Your task to perform on an android device: clear all cookies in the chrome app Image 0: 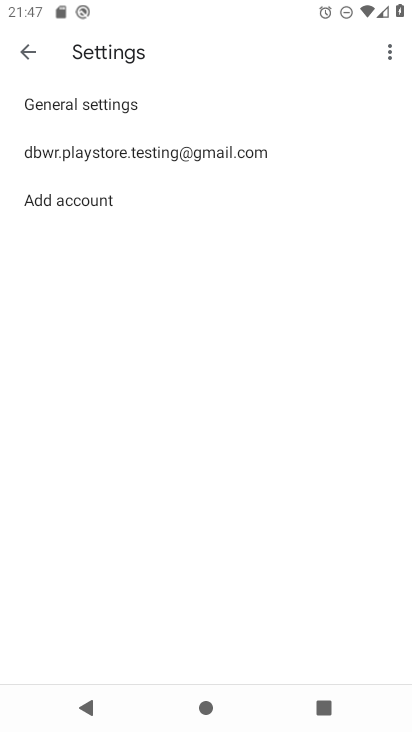
Step 0: press home button
Your task to perform on an android device: clear all cookies in the chrome app Image 1: 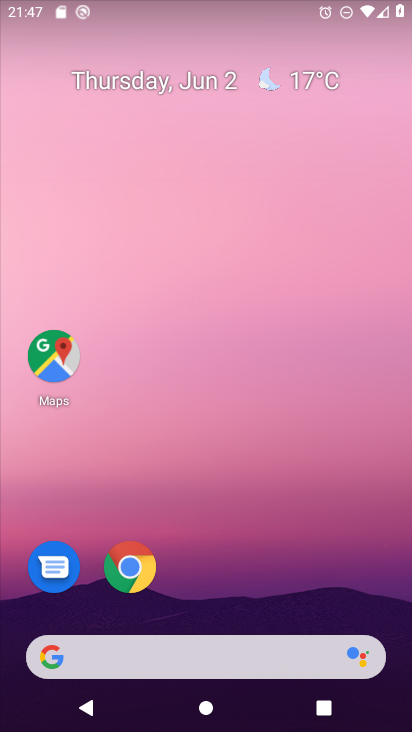
Step 1: click (142, 574)
Your task to perform on an android device: clear all cookies in the chrome app Image 2: 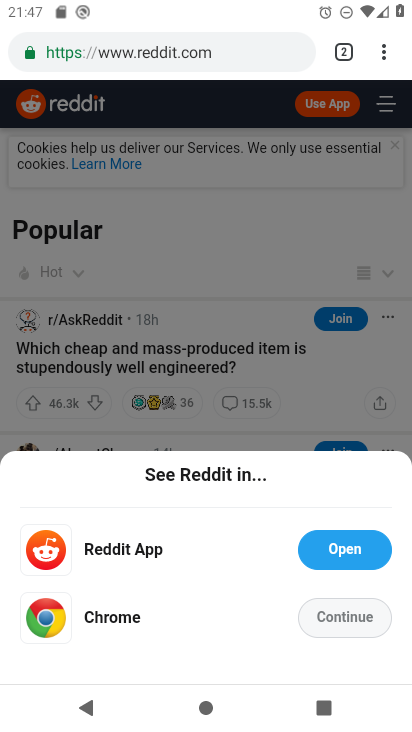
Step 2: click (391, 50)
Your task to perform on an android device: clear all cookies in the chrome app Image 3: 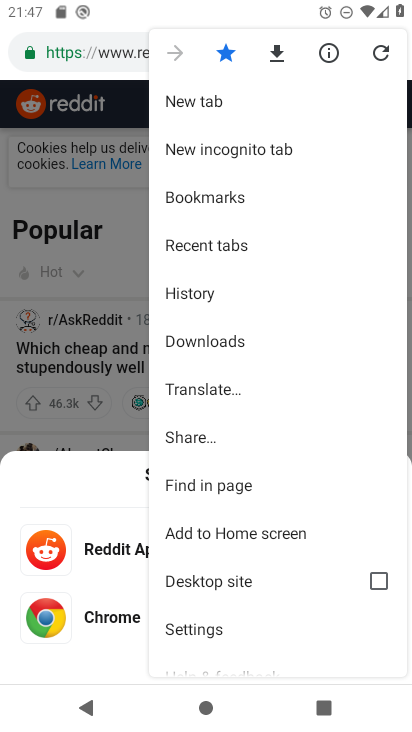
Step 3: drag from (217, 593) to (231, 393)
Your task to perform on an android device: clear all cookies in the chrome app Image 4: 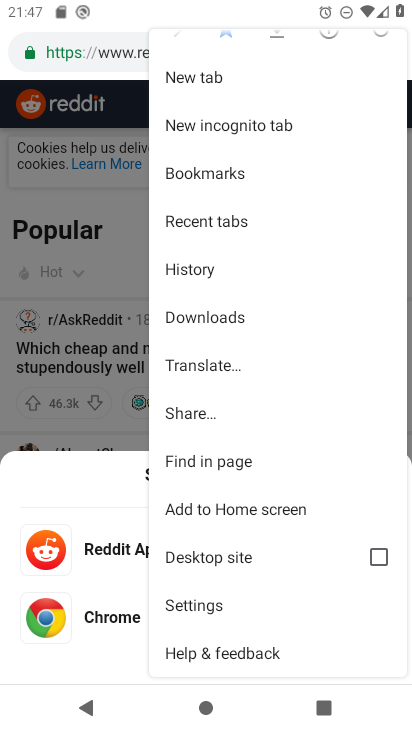
Step 4: click (203, 265)
Your task to perform on an android device: clear all cookies in the chrome app Image 5: 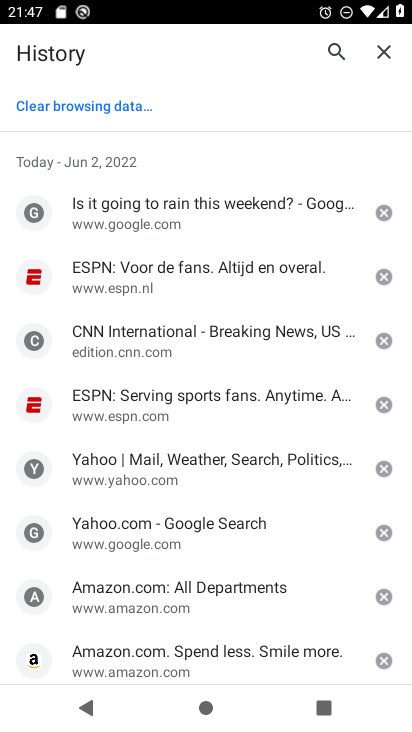
Step 5: click (108, 100)
Your task to perform on an android device: clear all cookies in the chrome app Image 6: 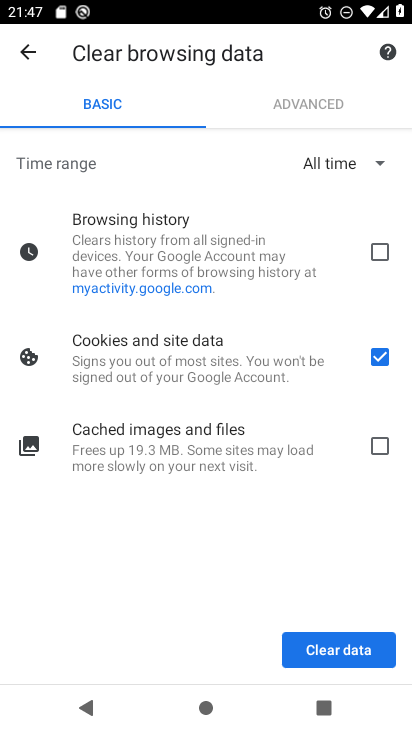
Step 6: click (357, 653)
Your task to perform on an android device: clear all cookies in the chrome app Image 7: 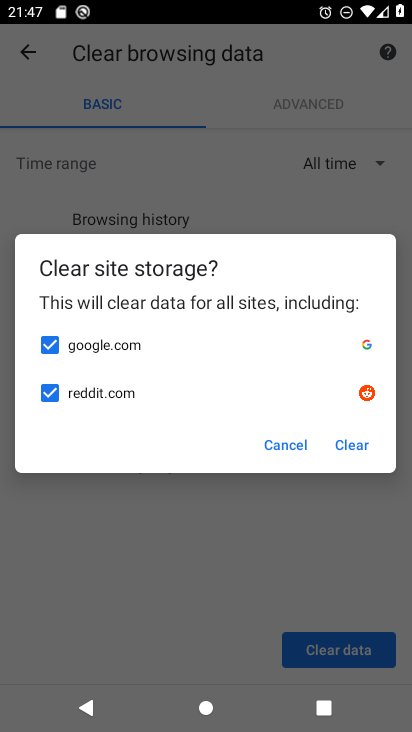
Step 7: click (357, 442)
Your task to perform on an android device: clear all cookies in the chrome app Image 8: 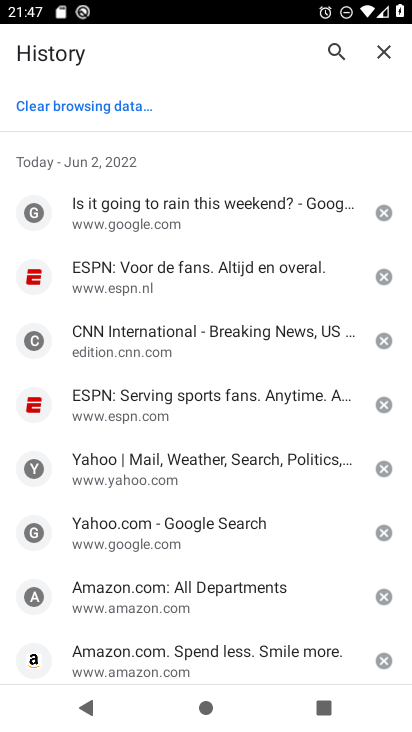
Step 8: task complete